Your task to perform on an android device: toggle sleep mode Image 0: 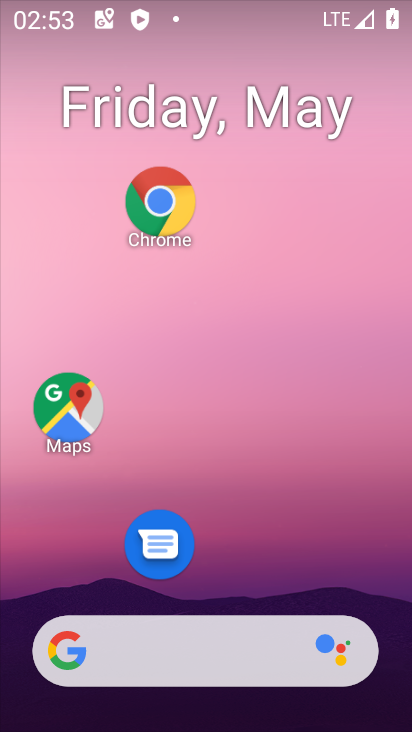
Step 0: drag from (251, 559) to (215, 129)
Your task to perform on an android device: toggle sleep mode Image 1: 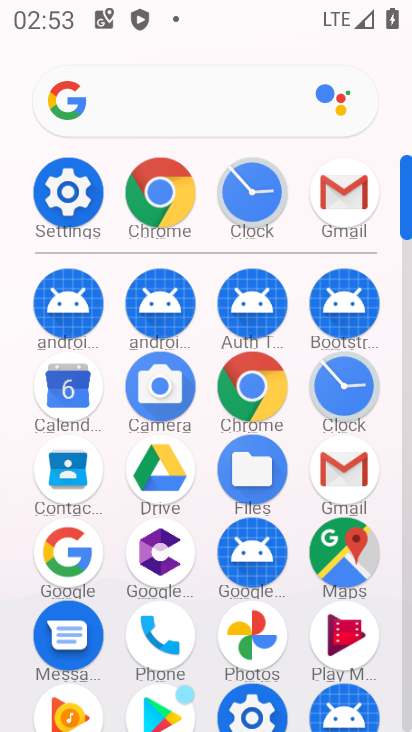
Step 1: click (83, 197)
Your task to perform on an android device: toggle sleep mode Image 2: 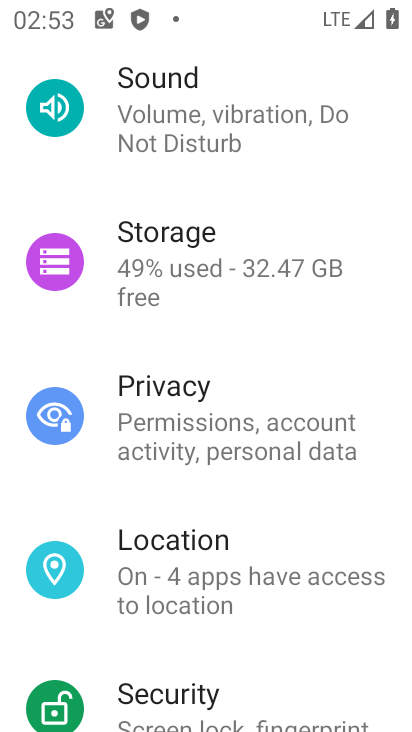
Step 2: task complete